Your task to perform on an android device: toggle notifications settings in the gmail app Image 0: 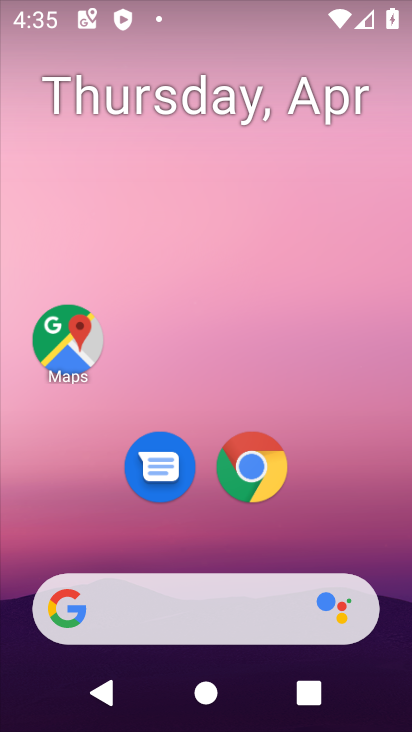
Step 0: drag from (228, 503) to (411, 484)
Your task to perform on an android device: toggle notifications settings in the gmail app Image 1: 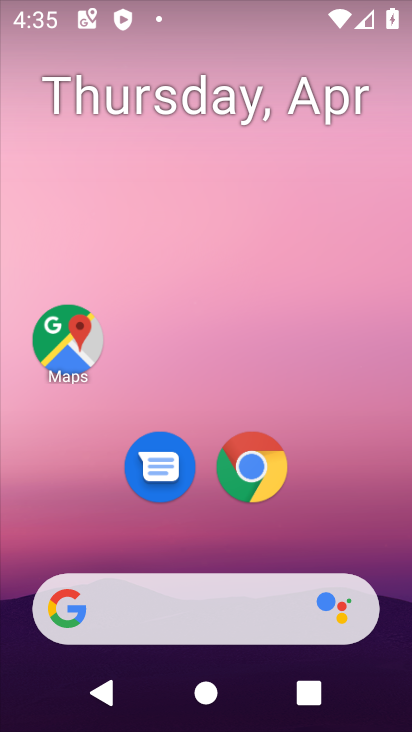
Step 1: drag from (188, 542) to (254, 97)
Your task to perform on an android device: toggle notifications settings in the gmail app Image 2: 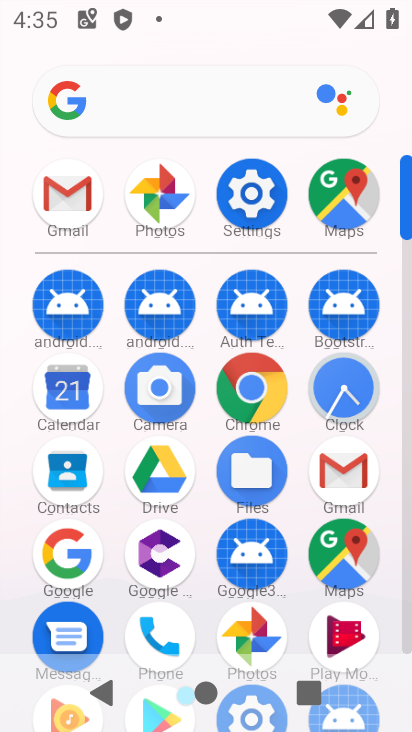
Step 2: click (335, 470)
Your task to perform on an android device: toggle notifications settings in the gmail app Image 3: 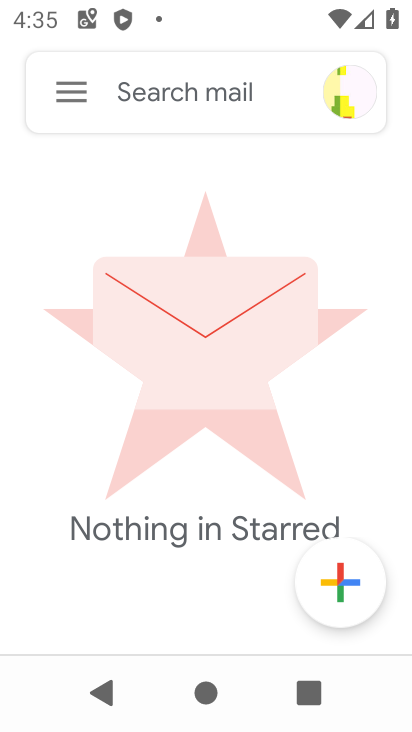
Step 3: click (75, 79)
Your task to perform on an android device: toggle notifications settings in the gmail app Image 4: 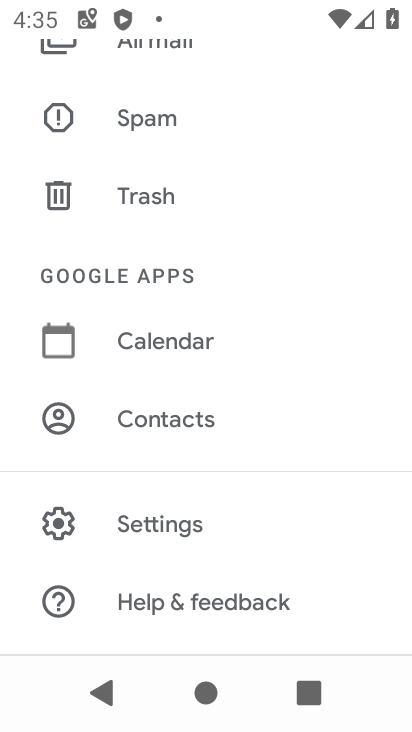
Step 4: click (171, 519)
Your task to perform on an android device: toggle notifications settings in the gmail app Image 5: 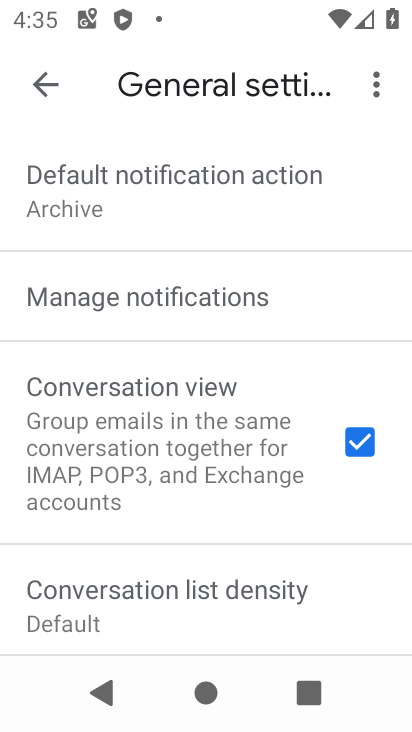
Step 5: click (163, 306)
Your task to perform on an android device: toggle notifications settings in the gmail app Image 6: 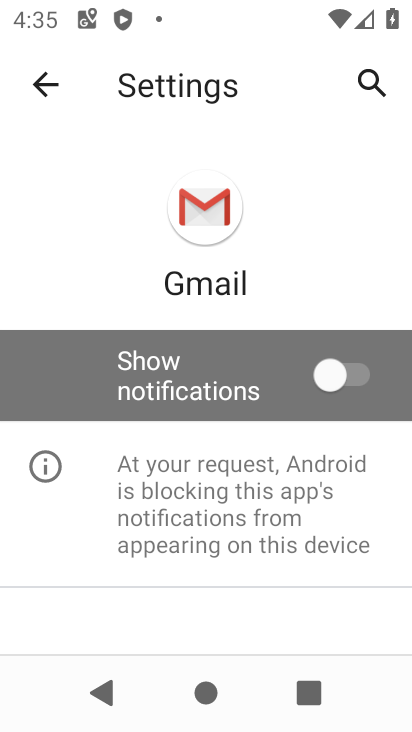
Step 6: click (362, 367)
Your task to perform on an android device: toggle notifications settings in the gmail app Image 7: 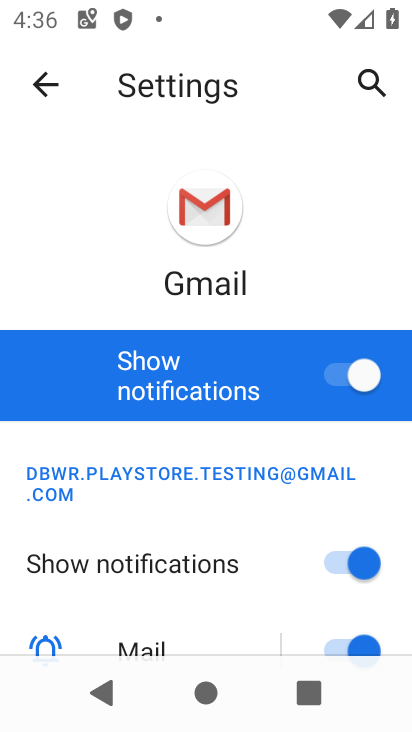
Step 7: task complete